Your task to perform on an android device: delete a single message in the gmail app Image 0: 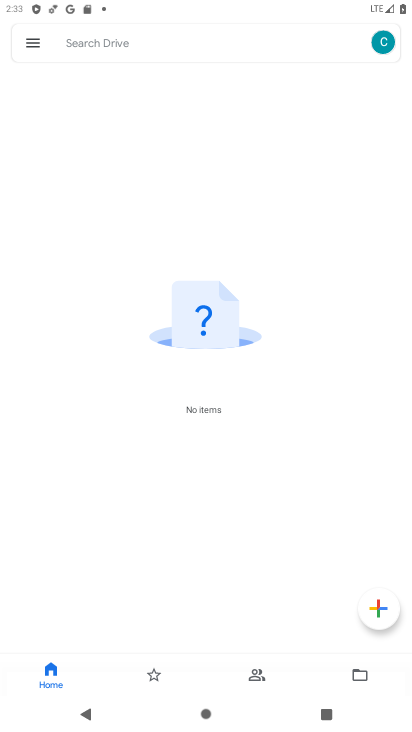
Step 0: press home button
Your task to perform on an android device: delete a single message in the gmail app Image 1: 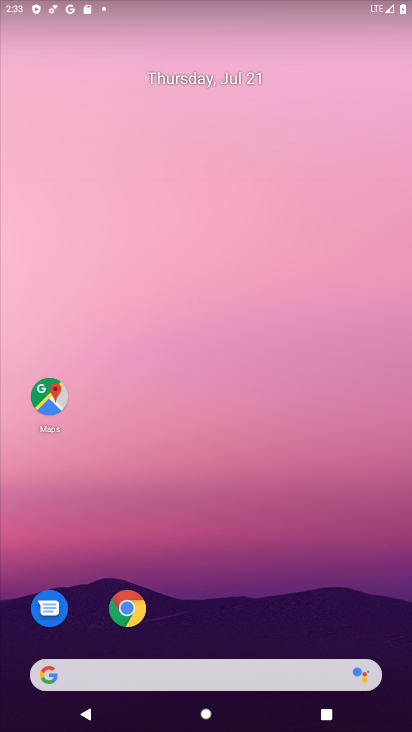
Step 1: drag from (208, 641) to (218, 0)
Your task to perform on an android device: delete a single message in the gmail app Image 2: 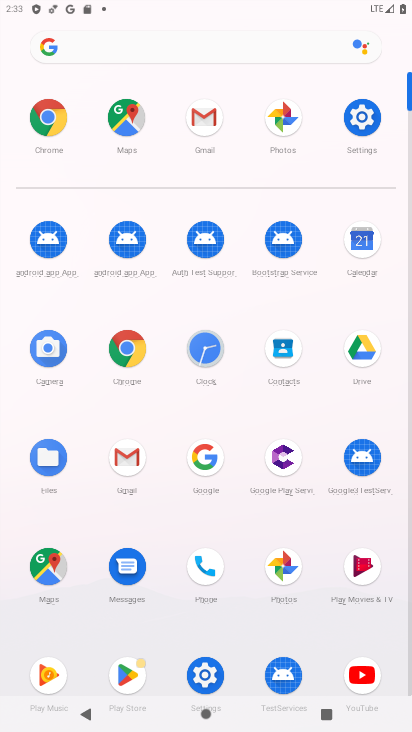
Step 2: click (121, 466)
Your task to perform on an android device: delete a single message in the gmail app Image 3: 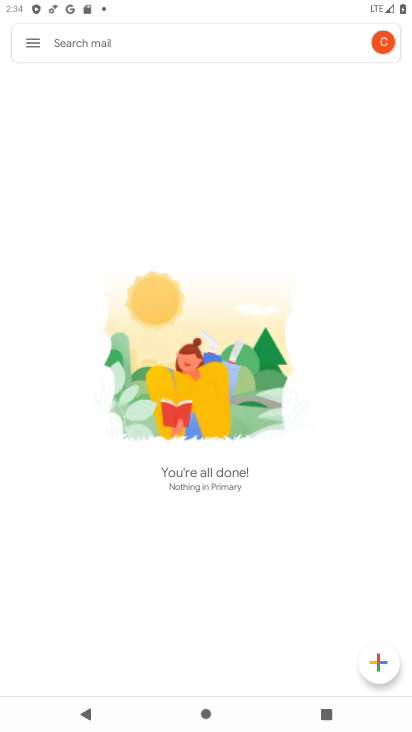
Step 3: task complete